Your task to perform on an android device: Check the weather Image 0: 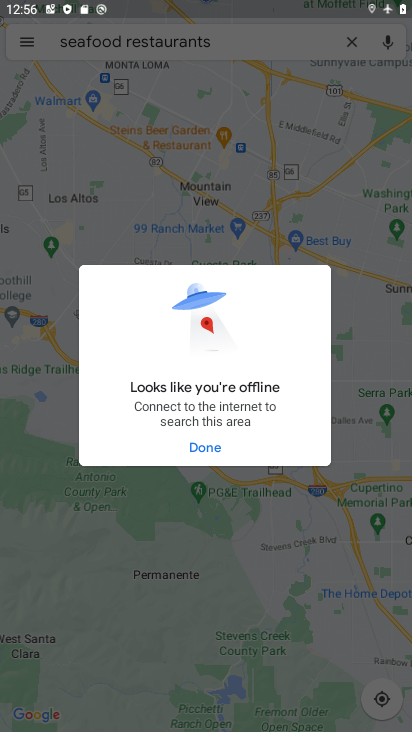
Step 0: press home button
Your task to perform on an android device: Check the weather Image 1: 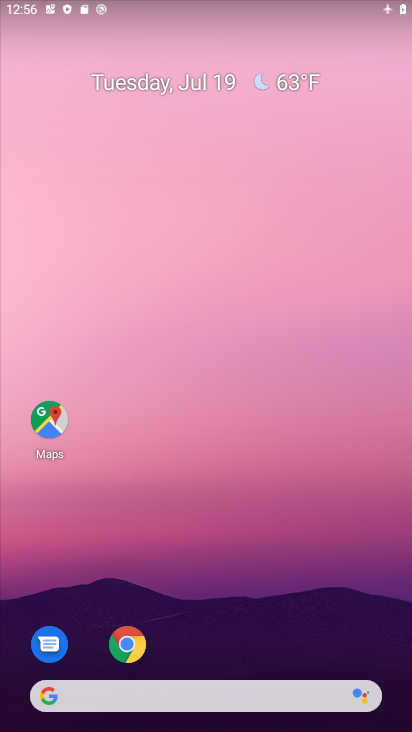
Step 1: drag from (240, 728) to (225, 160)
Your task to perform on an android device: Check the weather Image 2: 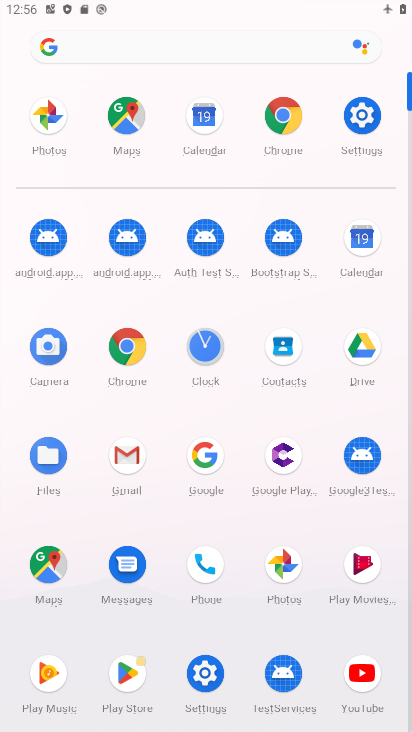
Step 2: click (208, 460)
Your task to perform on an android device: Check the weather Image 3: 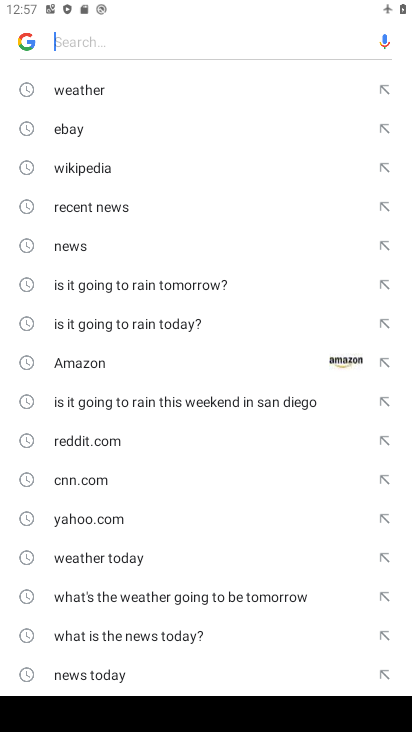
Step 3: click (83, 90)
Your task to perform on an android device: Check the weather Image 4: 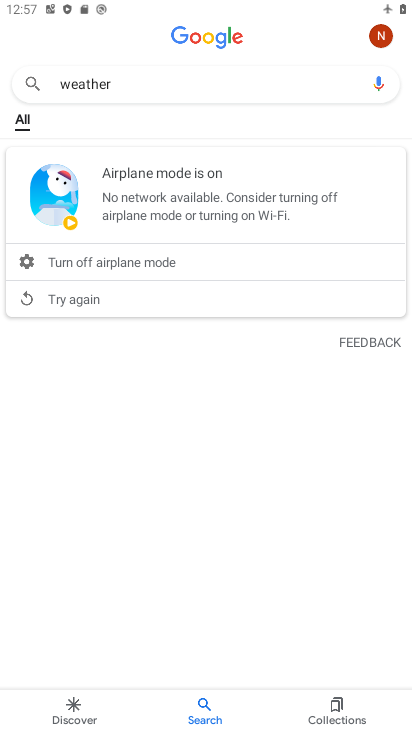
Step 4: task complete